Your task to perform on an android device: change alarm snooze length Image 0: 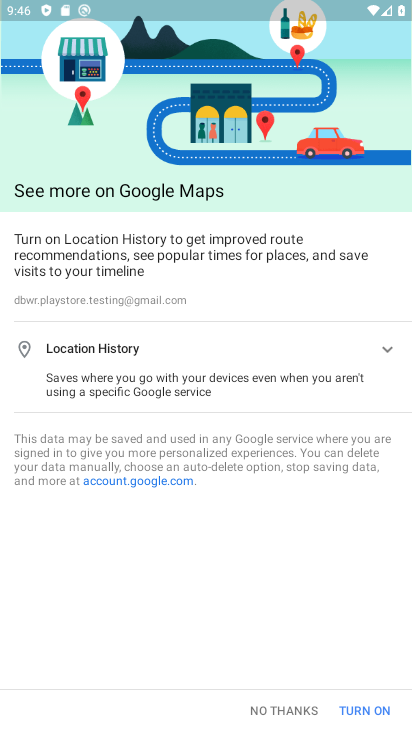
Step 0: press home button
Your task to perform on an android device: change alarm snooze length Image 1: 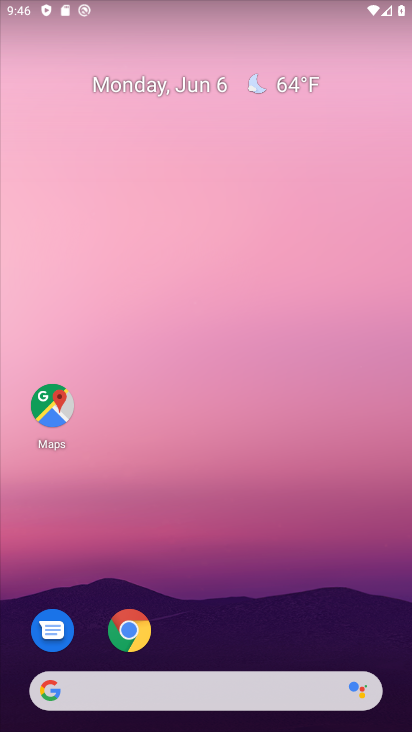
Step 1: drag from (143, 689) to (166, 86)
Your task to perform on an android device: change alarm snooze length Image 2: 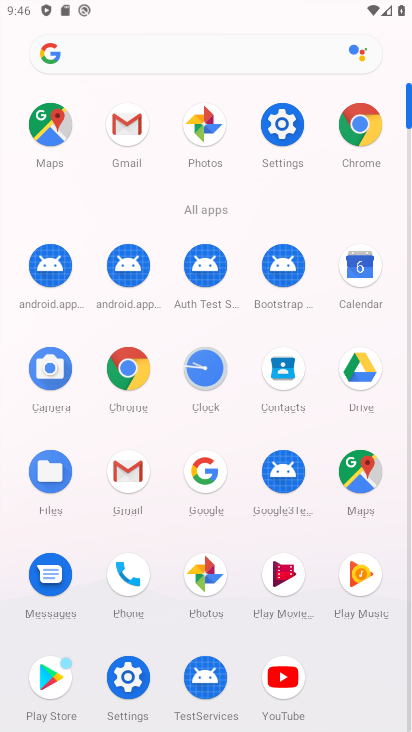
Step 2: click (192, 377)
Your task to perform on an android device: change alarm snooze length Image 3: 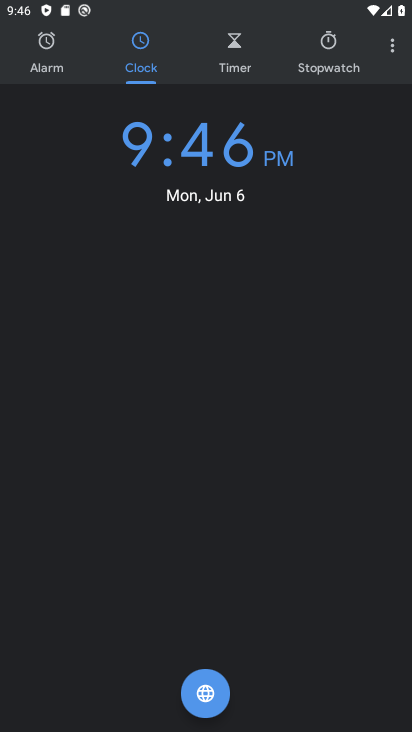
Step 3: click (399, 52)
Your task to perform on an android device: change alarm snooze length Image 4: 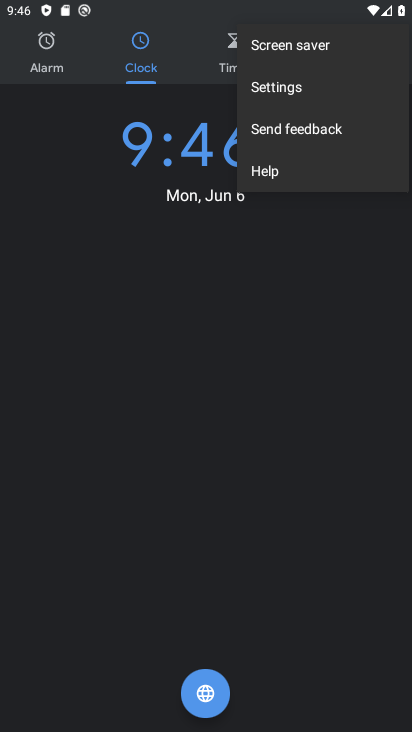
Step 4: click (317, 97)
Your task to perform on an android device: change alarm snooze length Image 5: 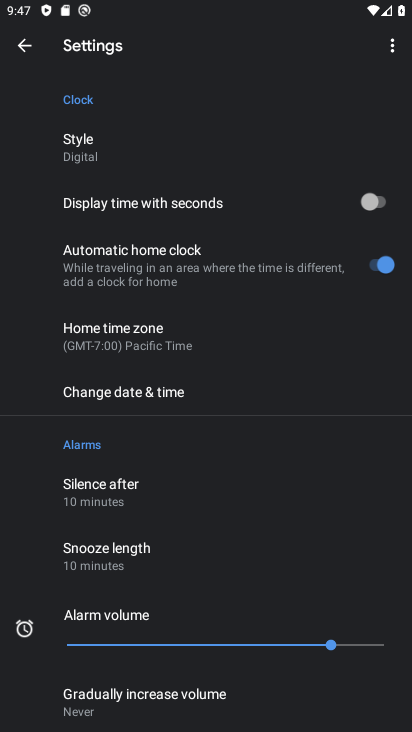
Step 5: click (137, 568)
Your task to perform on an android device: change alarm snooze length Image 6: 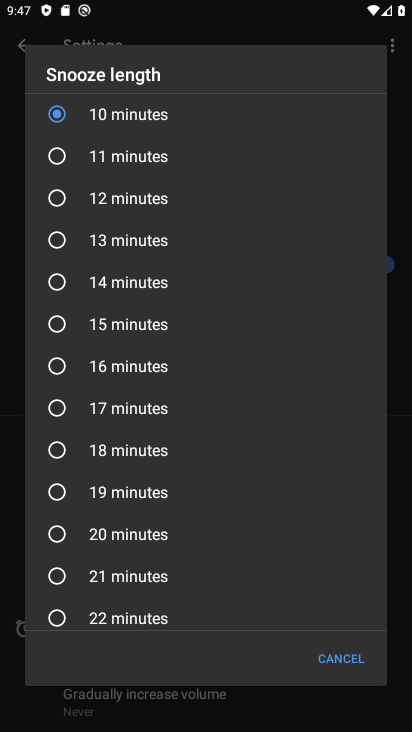
Step 6: click (112, 201)
Your task to perform on an android device: change alarm snooze length Image 7: 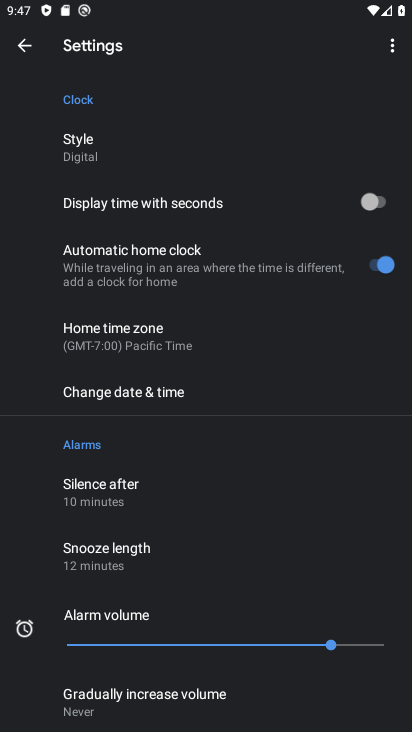
Step 7: task complete